Your task to perform on an android device: Open the Play Movies app and select the watchlist tab. Image 0: 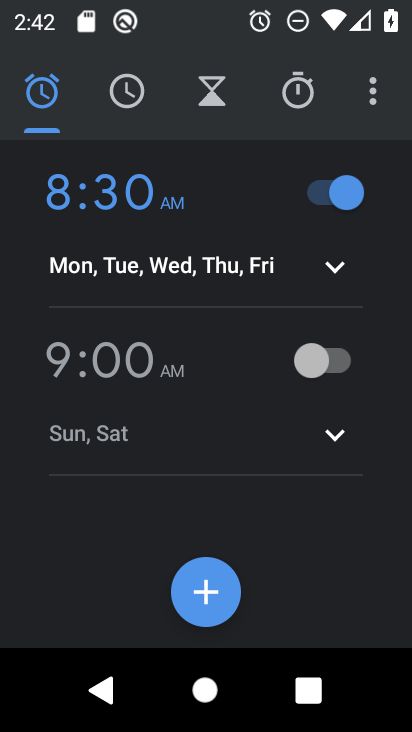
Step 0: press home button
Your task to perform on an android device: Open the Play Movies app and select the watchlist tab. Image 1: 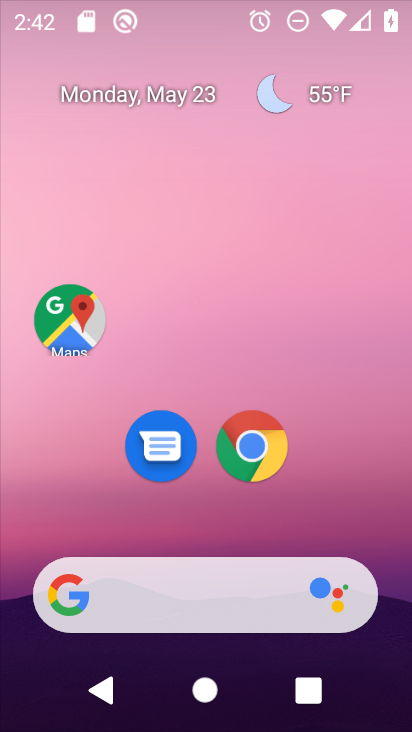
Step 1: drag from (208, 534) to (202, 206)
Your task to perform on an android device: Open the Play Movies app and select the watchlist tab. Image 2: 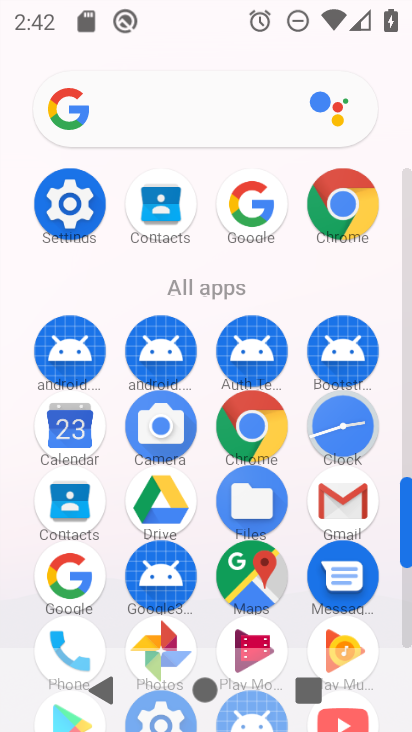
Step 2: drag from (114, 509) to (125, 201)
Your task to perform on an android device: Open the Play Movies app and select the watchlist tab. Image 3: 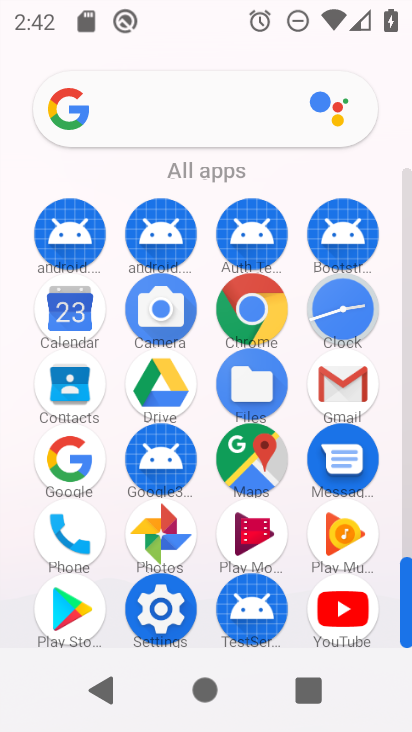
Step 3: click (61, 599)
Your task to perform on an android device: Open the Play Movies app and select the watchlist tab. Image 4: 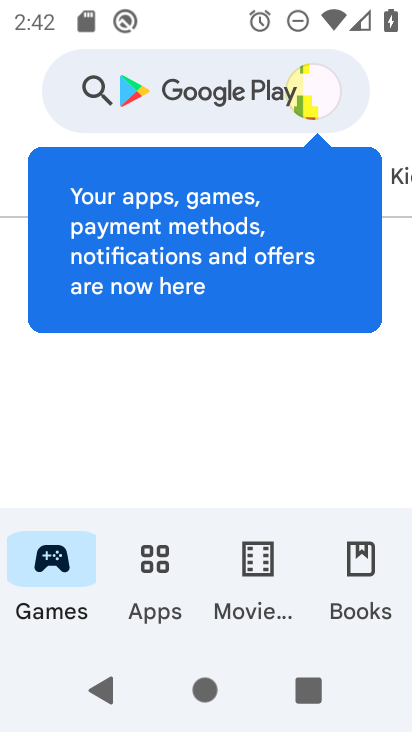
Step 4: press home button
Your task to perform on an android device: Open the Play Movies app and select the watchlist tab. Image 5: 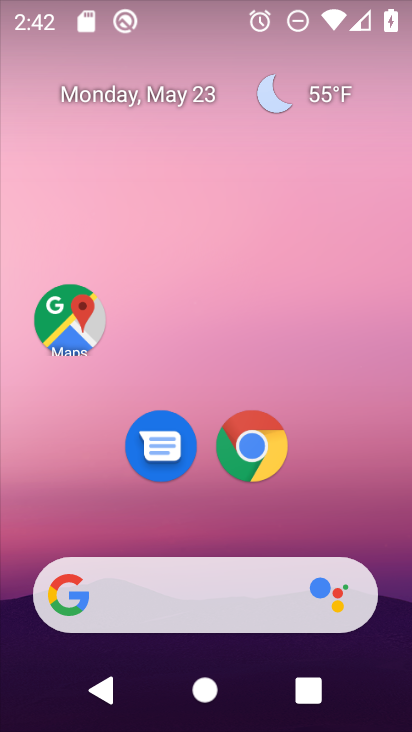
Step 5: drag from (172, 540) to (225, 144)
Your task to perform on an android device: Open the Play Movies app and select the watchlist tab. Image 6: 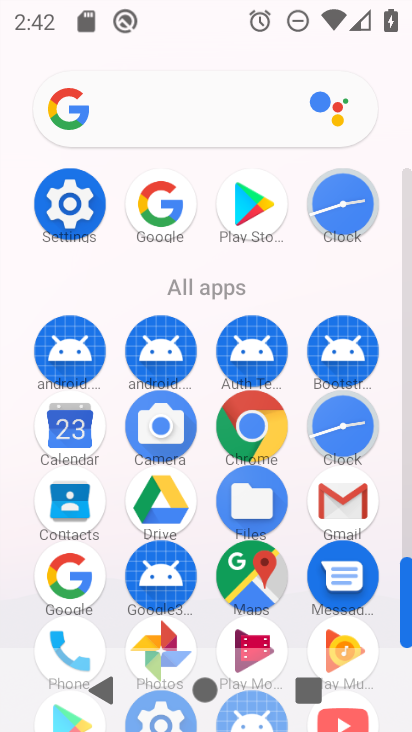
Step 6: drag from (289, 584) to (299, 340)
Your task to perform on an android device: Open the Play Movies app and select the watchlist tab. Image 7: 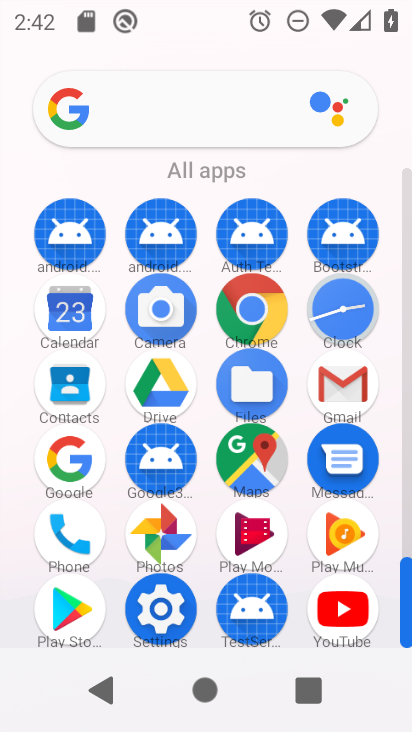
Step 7: click (264, 513)
Your task to perform on an android device: Open the Play Movies app and select the watchlist tab. Image 8: 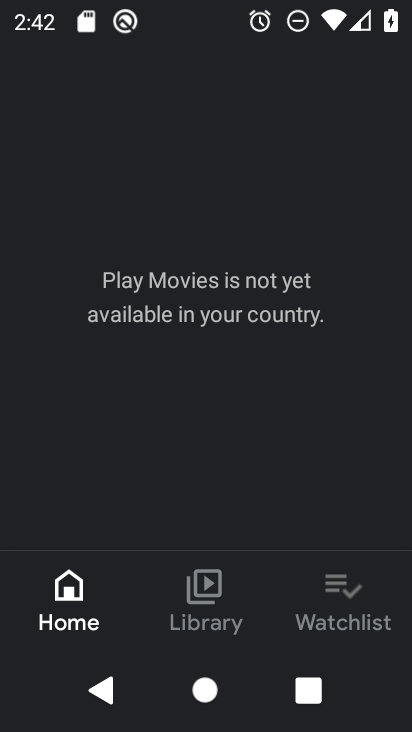
Step 8: click (325, 607)
Your task to perform on an android device: Open the Play Movies app and select the watchlist tab. Image 9: 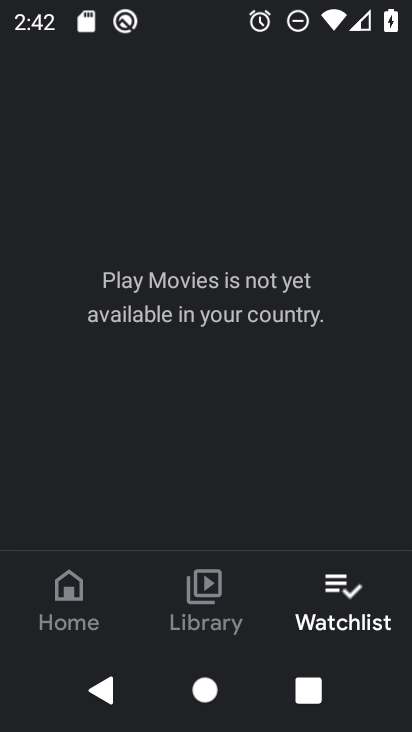
Step 9: task complete